Your task to perform on an android device: turn off translation in the chrome app Image 0: 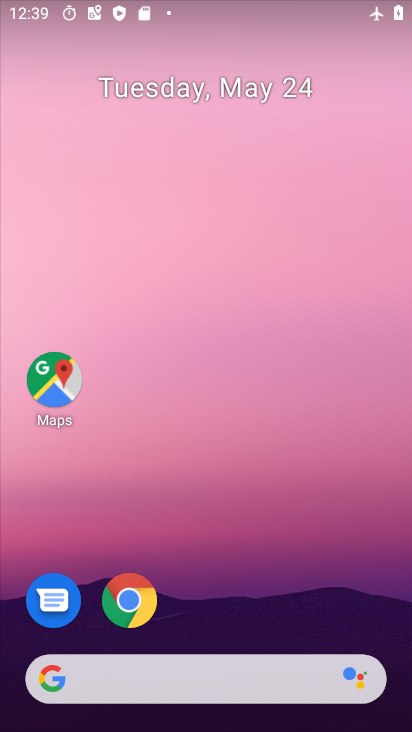
Step 0: click (125, 603)
Your task to perform on an android device: turn off translation in the chrome app Image 1: 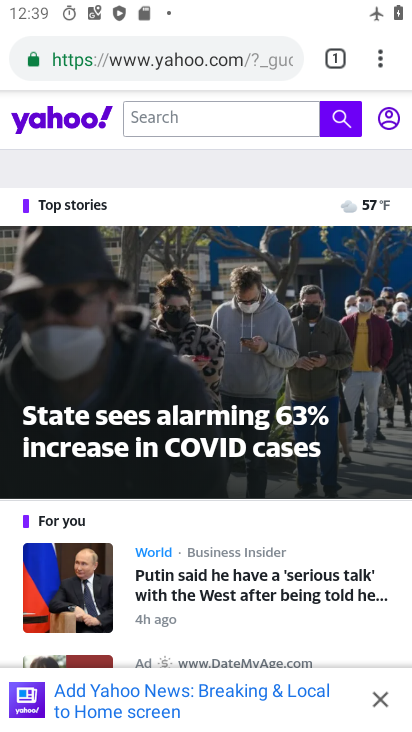
Step 1: click (394, 51)
Your task to perform on an android device: turn off translation in the chrome app Image 2: 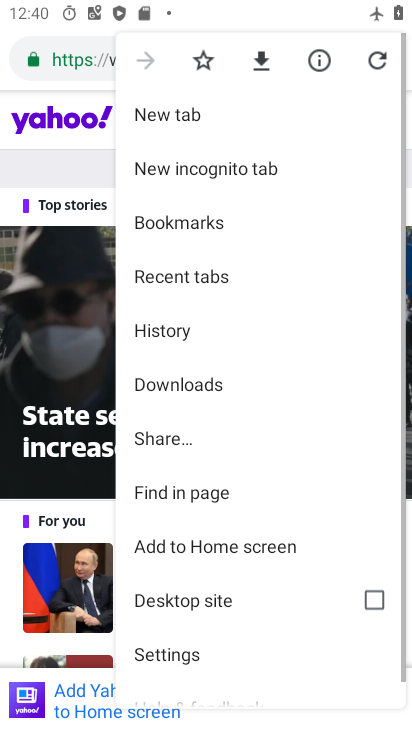
Step 2: drag from (256, 624) to (273, 167)
Your task to perform on an android device: turn off translation in the chrome app Image 3: 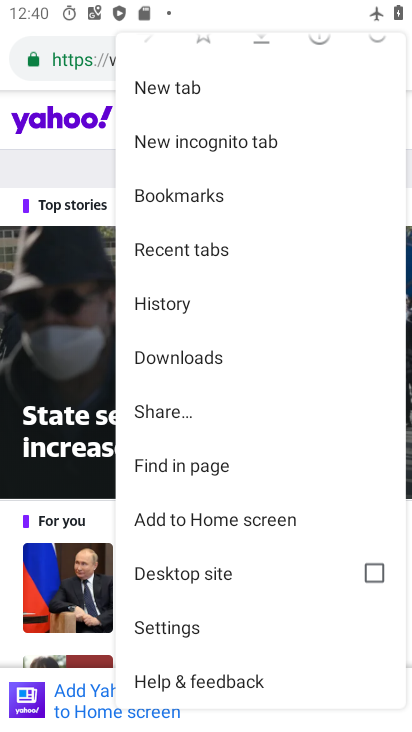
Step 3: click (188, 628)
Your task to perform on an android device: turn off translation in the chrome app Image 4: 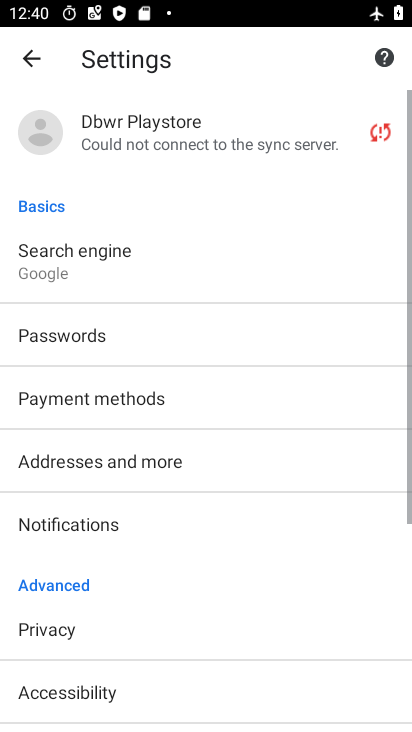
Step 4: drag from (190, 603) to (255, 181)
Your task to perform on an android device: turn off translation in the chrome app Image 5: 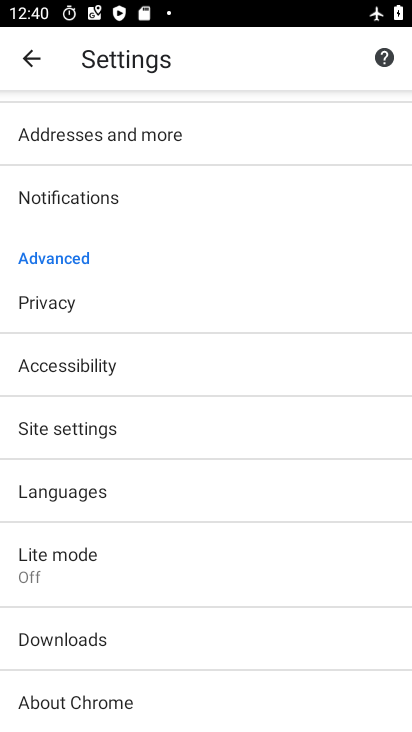
Step 5: click (93, 501)
Your task to perform on an android device: turn off translation in the chrome app Image 6: 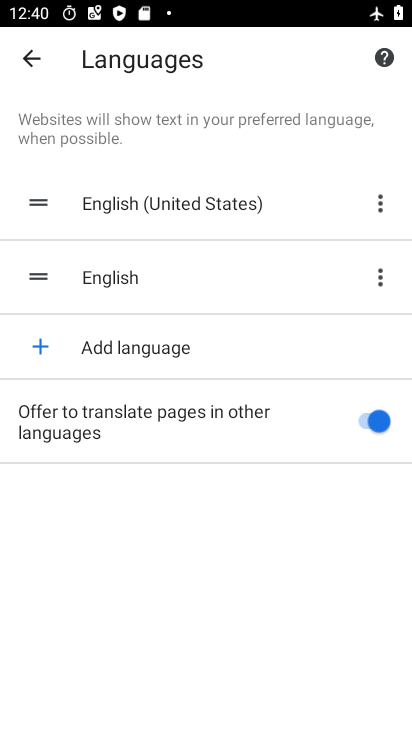
Step 6: click (360, 419)
Your task to perform on an android device: turn off translation in the chrome app Image 7: 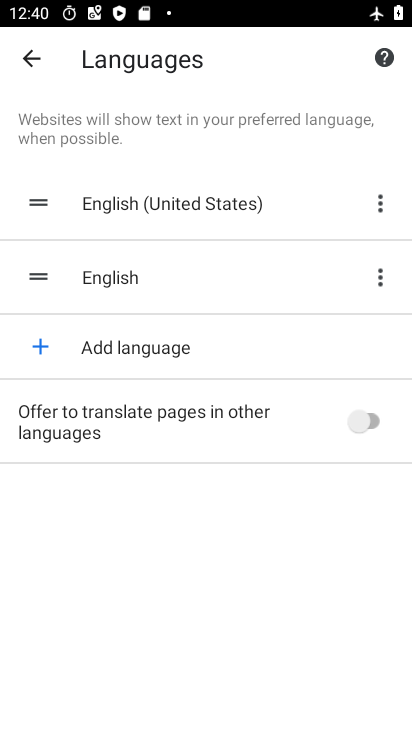
Step 7: task complete